Your task to perform on an android device: check storage Image 0: 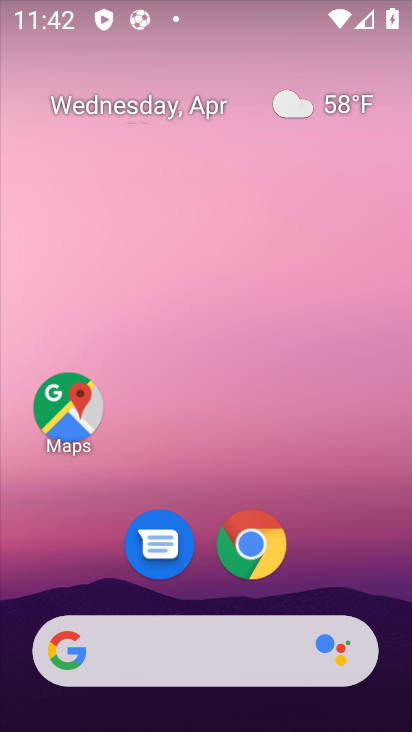
Step 0: click (280, 256)
Your task to perform on an android device: check storage Image 1: 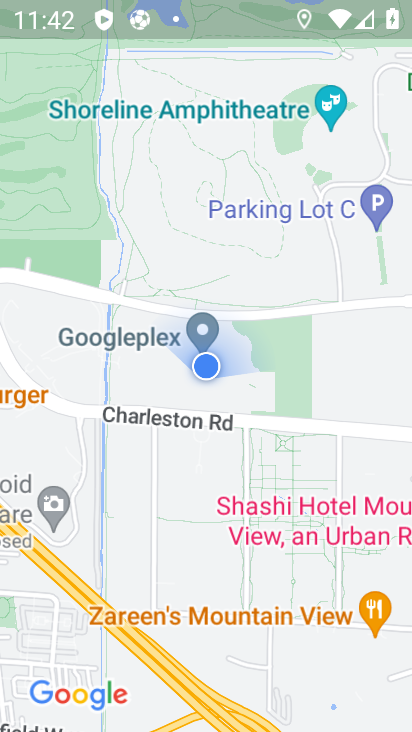
Step 1: press home button
Your task to perform on an android device: check storage Image 2: 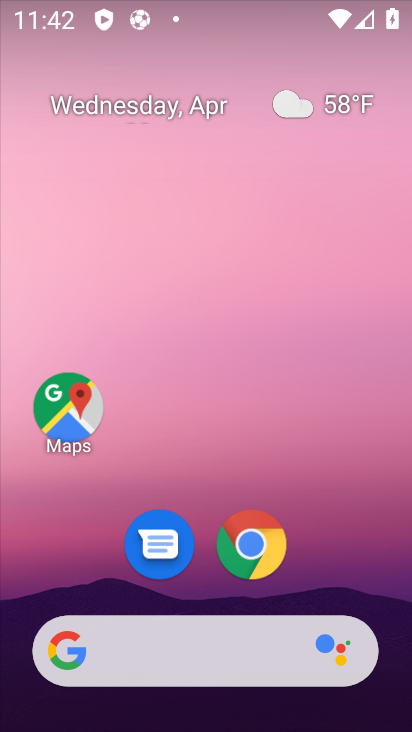
Step 2: click (341, 170)
Your task to perform on an android device: check storage Image 3: 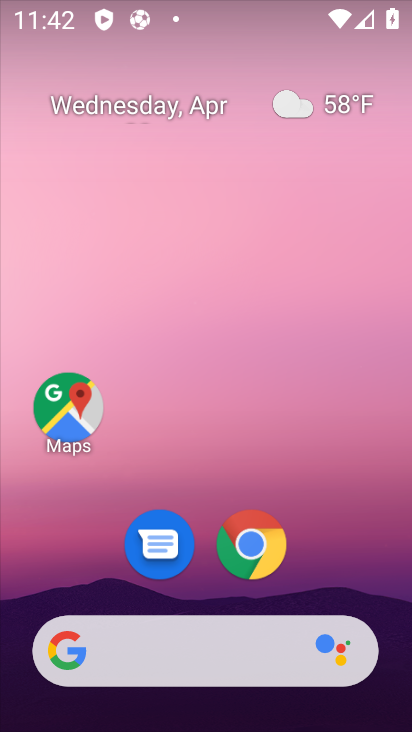
Step 3: drag from (345, 569) to (407, 2)
Your task to perform on an android device: check storage Image 4: 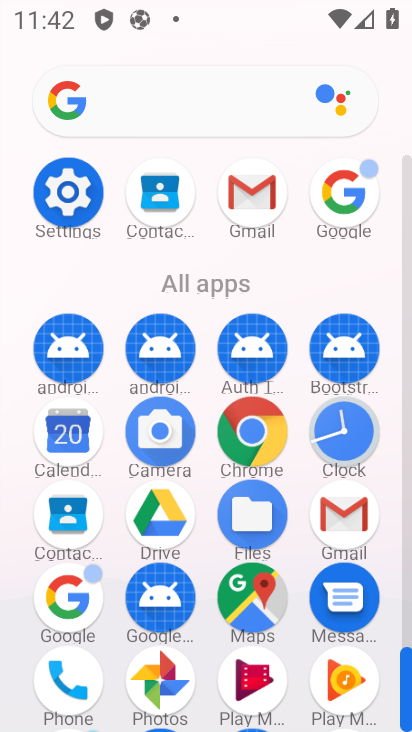
Step 4: click (54, 211)
Your task to perform on an android device: check storage Image 5: 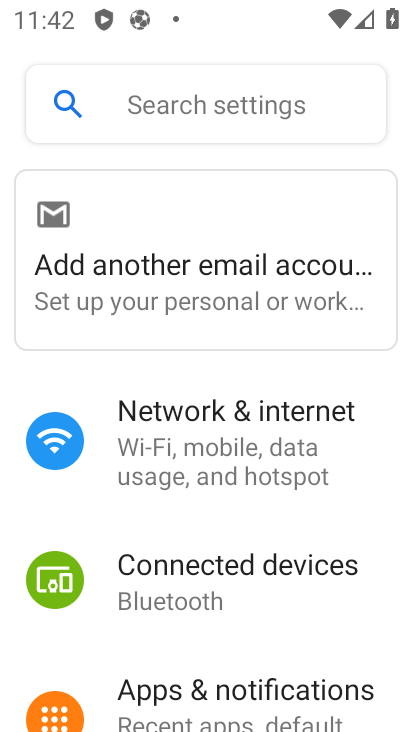
Step 5: drag from (255, 680) to (324, 289)
Your task to perform on an android device: check storage Image 6: 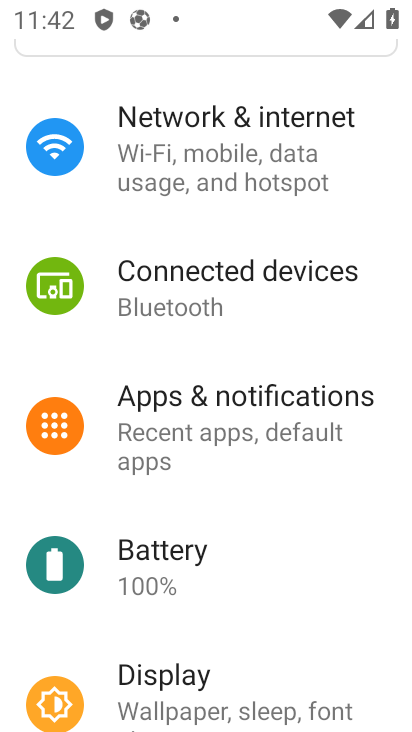
Step 6: drag from (198, 589) to (268, 187)
Your task to perform on an android device: check storage Image 7: 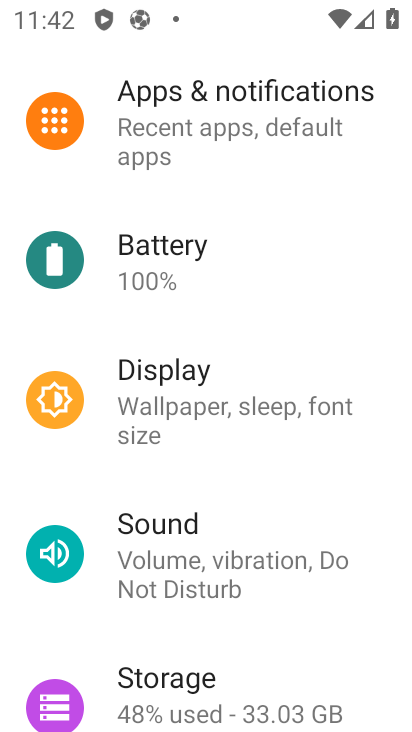
Step 7: drag from (216, 575) to (234, 283)
Your task to perform on an android device: check storage Image 8: 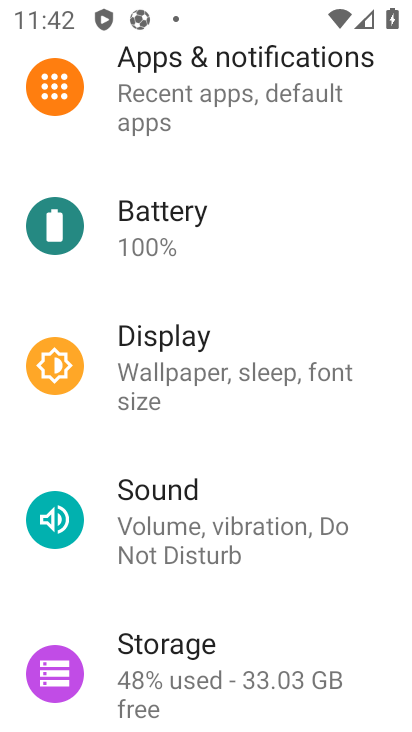
Step 8: click (188, 681)
Your task to perform on an android device: check storage Image 9: 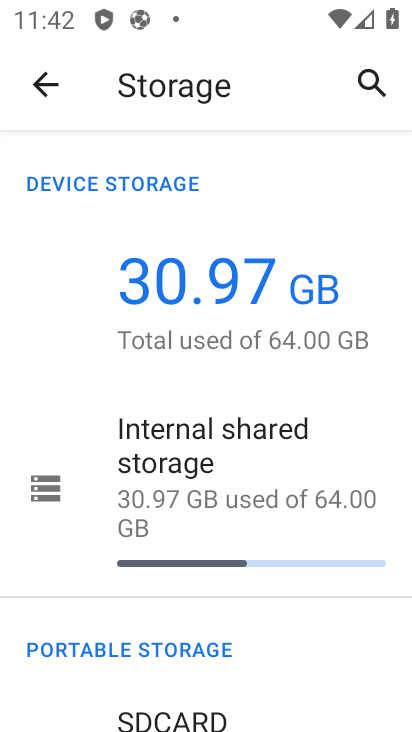
Step 9: task complete